Your task to perform on an android device: turn on showing notifications on the lock screen Image 0: 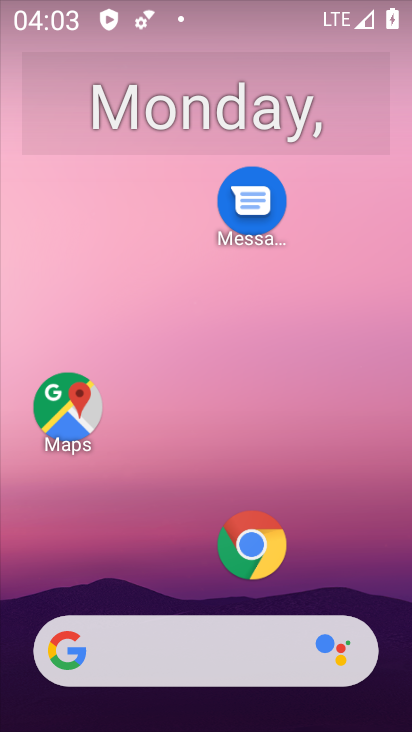
Step 0: drag from (171, 551) to (283, 220)
Your task to perform on an android device: turn on showing notifications on the lock screen Image 1: 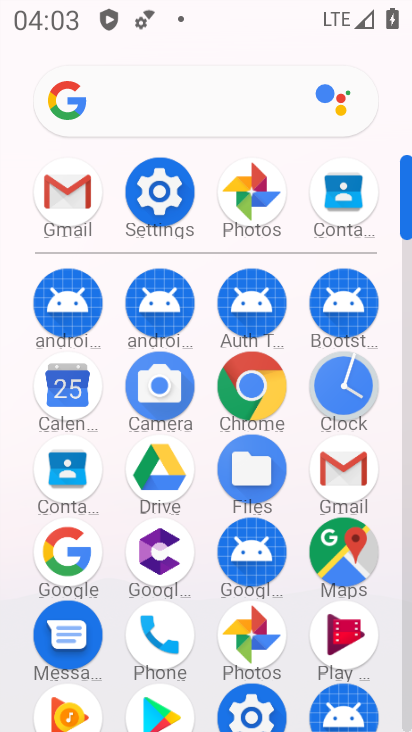
Step 1: click (154, 184)
Your task to perform on an android device: turn on showing notifications on the lock screen Image 2: 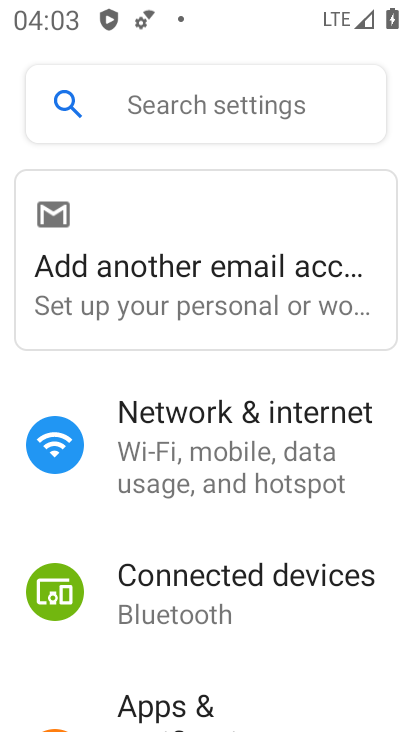
Step 2: drag from (222, 636) to (327, 168)
Your task to perform on an android device: turn on showing notifications on the lock screen Image 3: 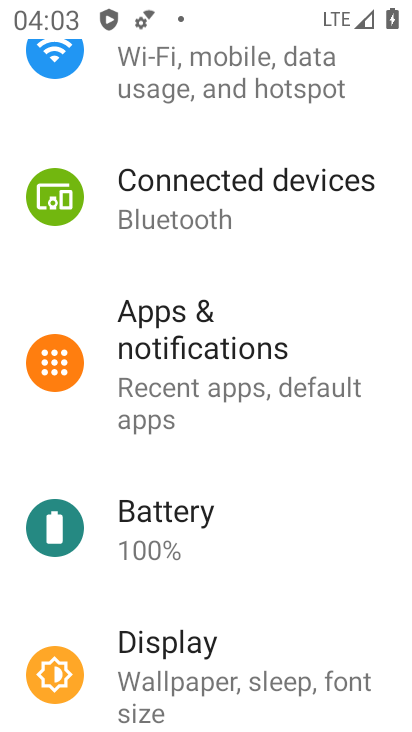
Step 3: click (192, 346)
Your task to perform on an android device: turn on showing notifications on the lock screen Image 4: 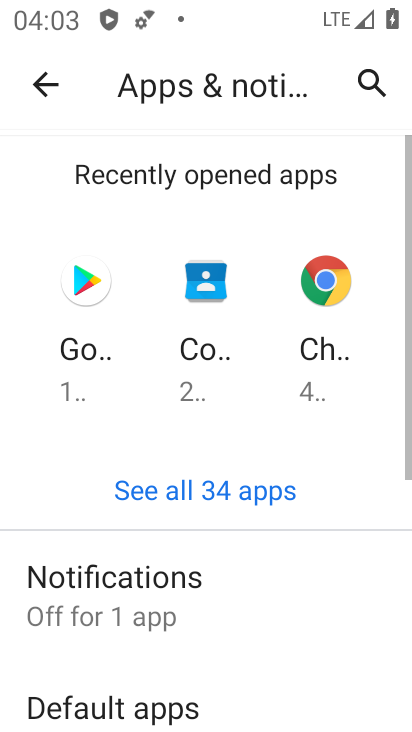
Step 4: drag from (121, 664) to (211, 363)
Your task to perform on an android device: turn on showing notifications on the lock screen Image 5: 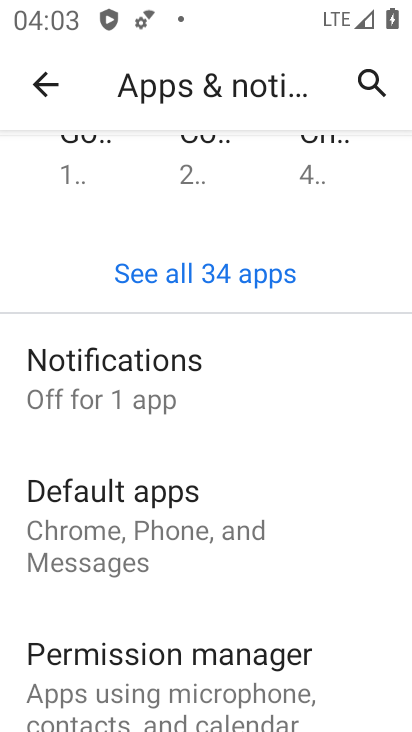
Step 5: click (200, 378)
Your task to perform on an android device: turn on showing notifications on the lock screen Image 6: 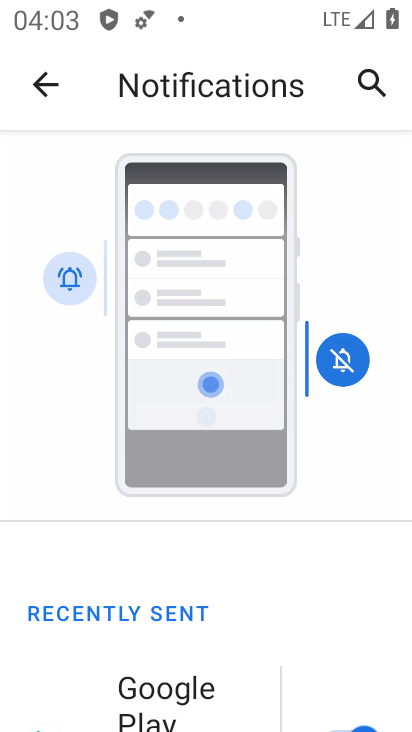
Step 6: drag from (179, 657) to (230, 189)
Your task to perform on an android device: turn on showing notifications on the lock screen Image 7: 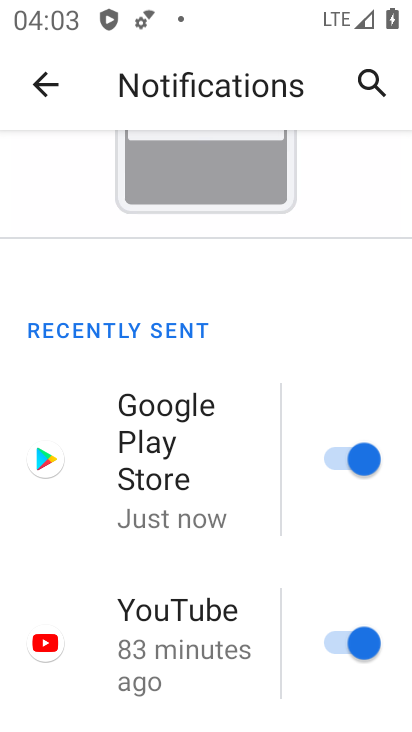
Step 7: drag from (174, 533) to (283, 175)
Your task to perform on an android device: turn on showing notifications on the lock screen Image 8: 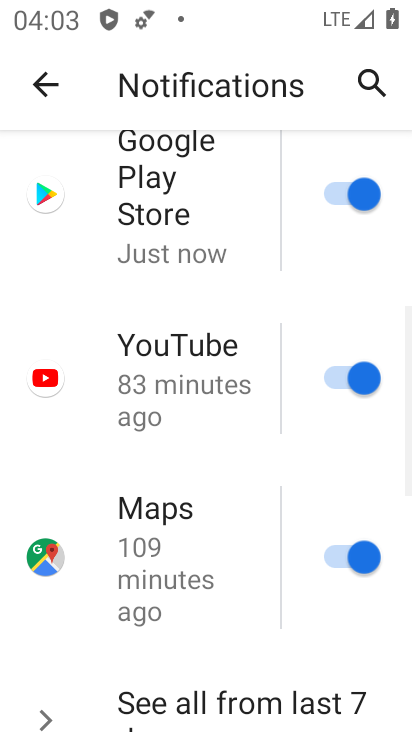
Step 8: drag from (182, 637) to (309, 103)
Your task to perform on an android device: turn on showing notifications on the lock screen Image 9: 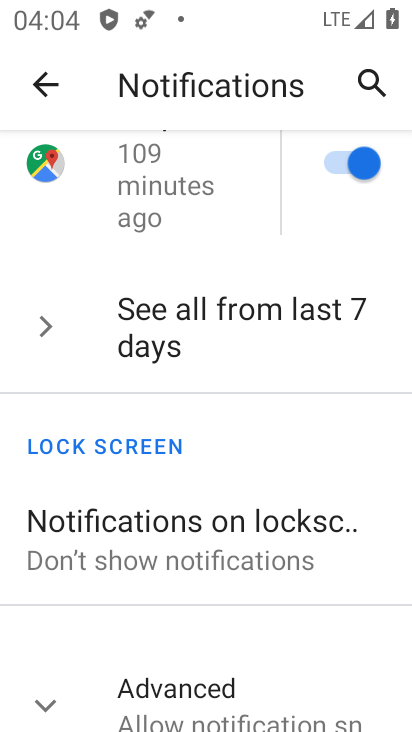
Step 9: click (198, 523)
Your task to perform on an android device: turn on showing notifications on the lock screen Image 10: 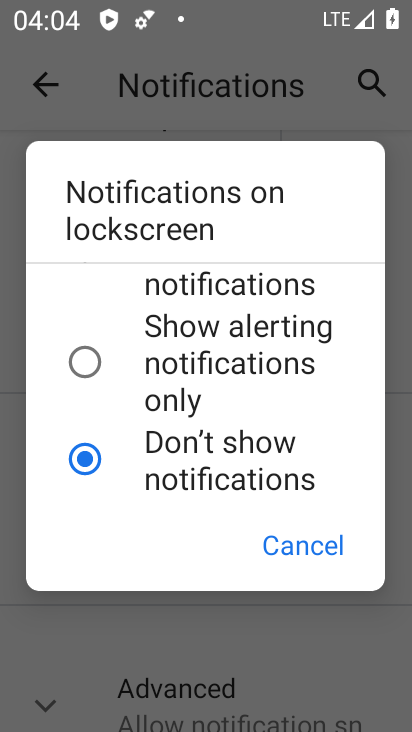
Step 10: drag from (208, 303) to (172, 565)
Your task to perform on an android device: turn on showing notifications on the lock screen Image 11: 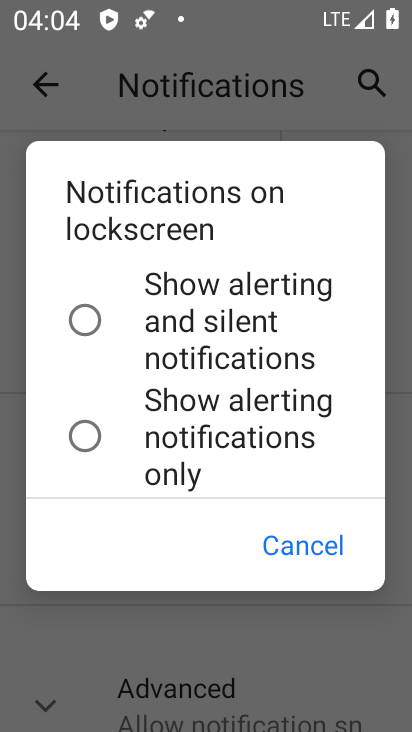
Step 11: click (82, 307)
Your task to perform on an android device: turn on showing notifications on the lock screen Image 12: 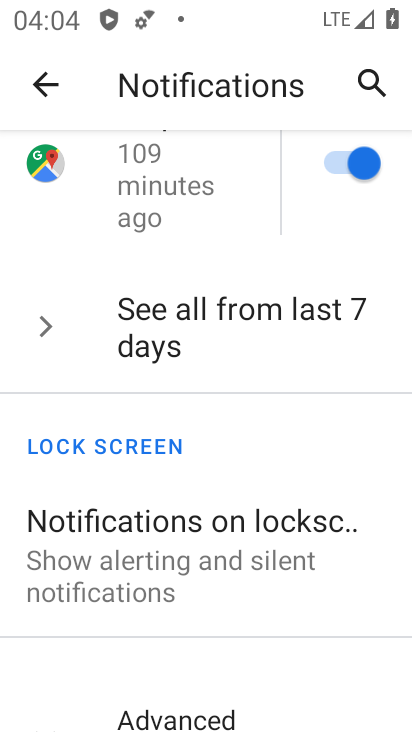
Step 12: task complete